Your task to perform on an android device: manage bookmarks in the chrome app Image 0: 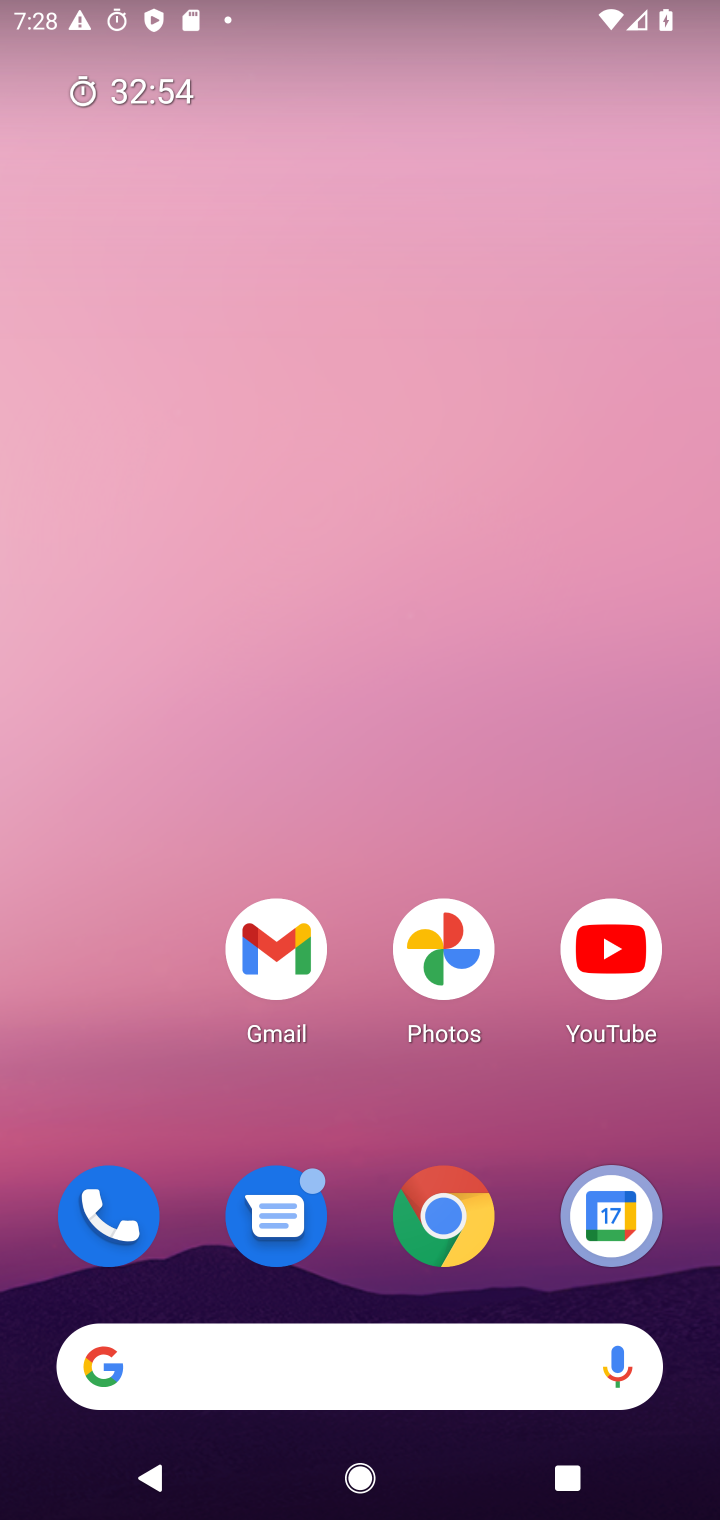
Step 0: drag from (446, 1080) to (464, 8)
Your task to perform on an android device: manage bookmarks in the chrome app Image 1: 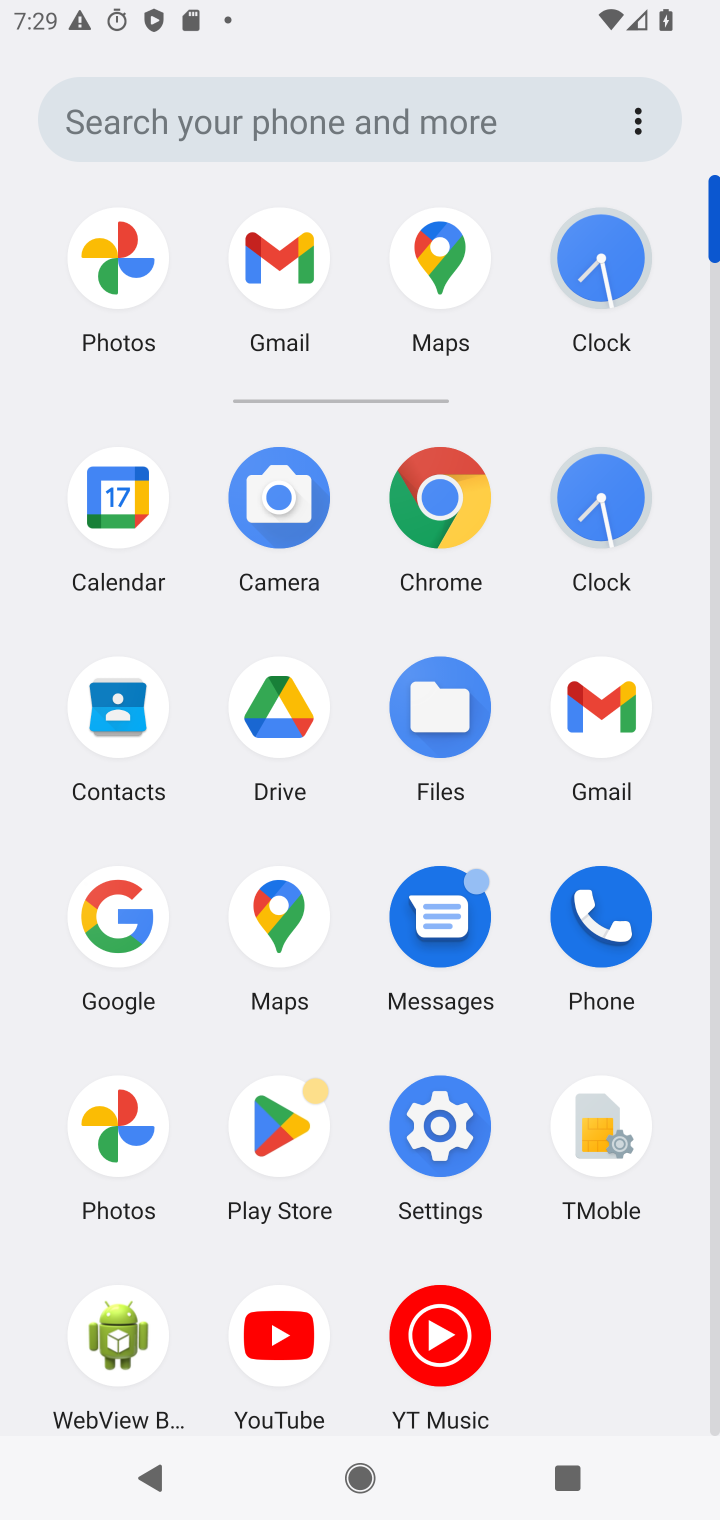
Step 1: click (429, 447)
Your task to perform on an android device: manage bookmarks in the chrome app Image 2: 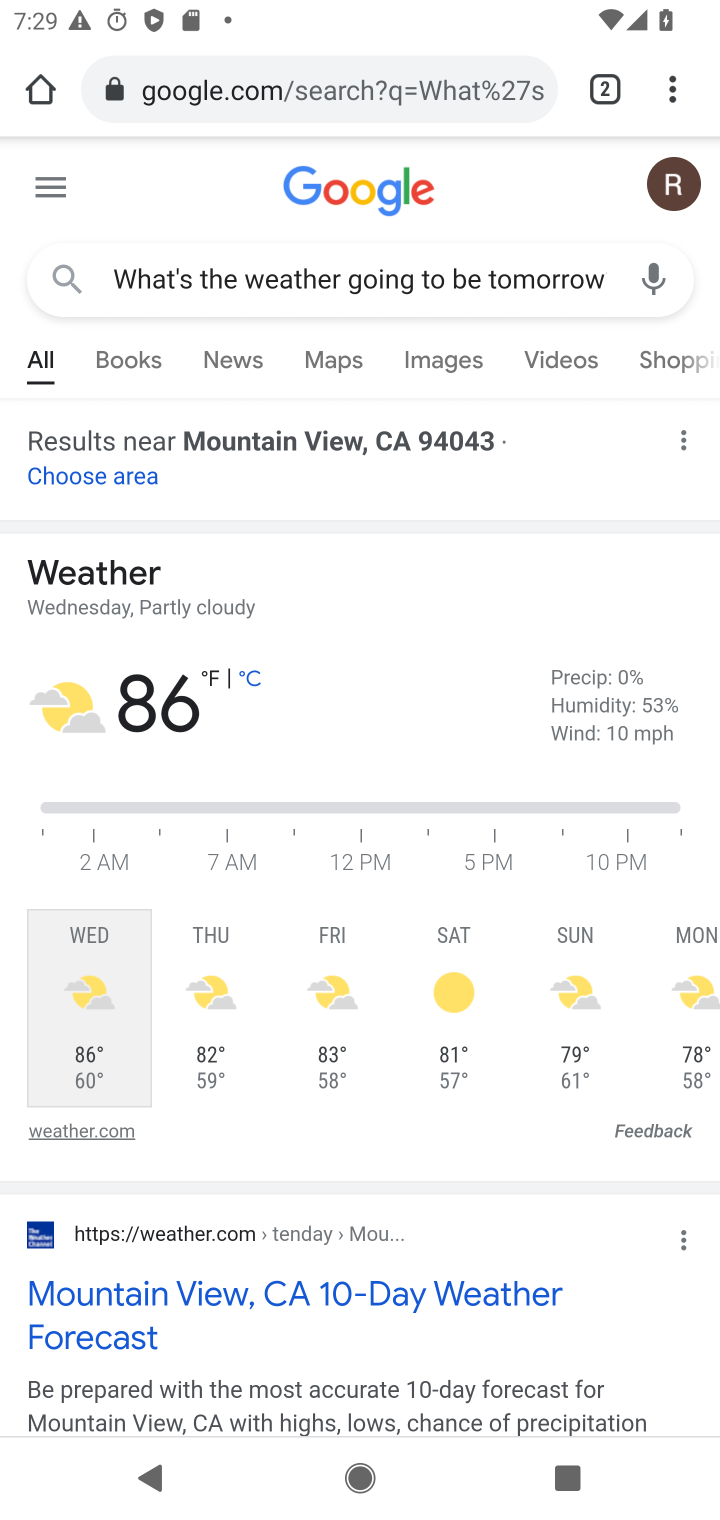
Step 2: task complete